Your task to perform on an android device: Go to Google maps Image 0: 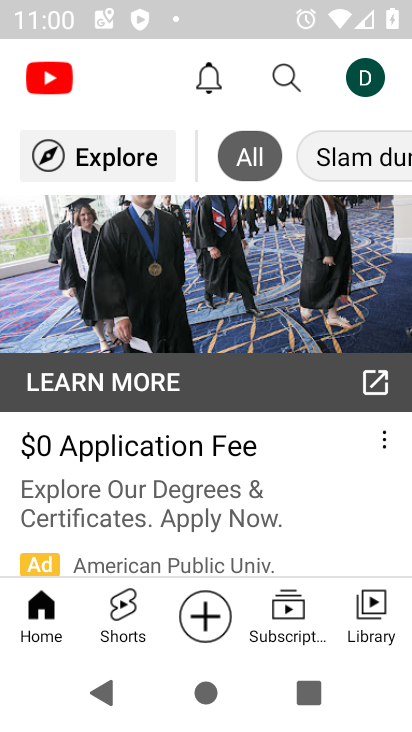
Step 0: press home button
Your task to perform on an android device: Go to Google maps Image 1: 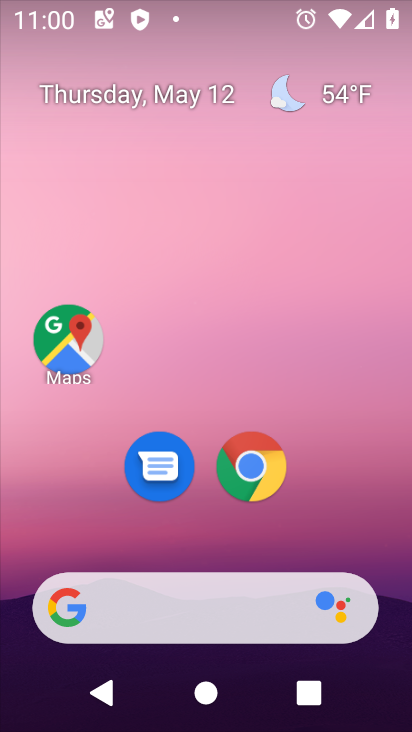
Step 1: drag from (395, 529) to (384, 117)
Your task to perform on an android device: Go to Google maps Image 2: 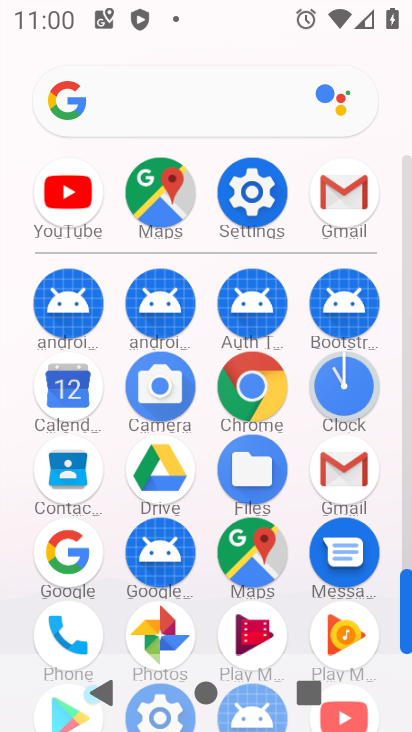
Step 2: click (238, 578)
Your task to perform on an android device: Go to Google maps Image 3: 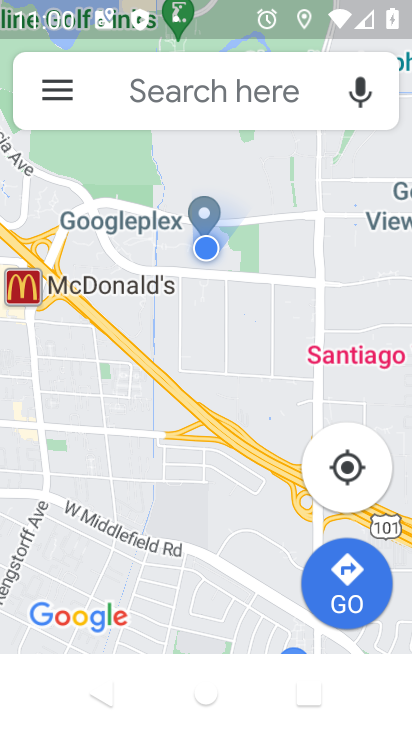
Step 3: click (176, 88)
Your task to perform on an android device: Go to Google maps Image 4: 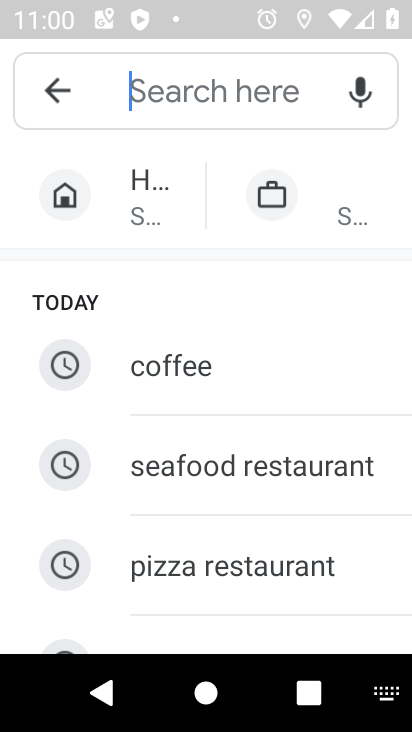
Step 4: task complete